Your task to perform on an android device: Open Google Image 0: 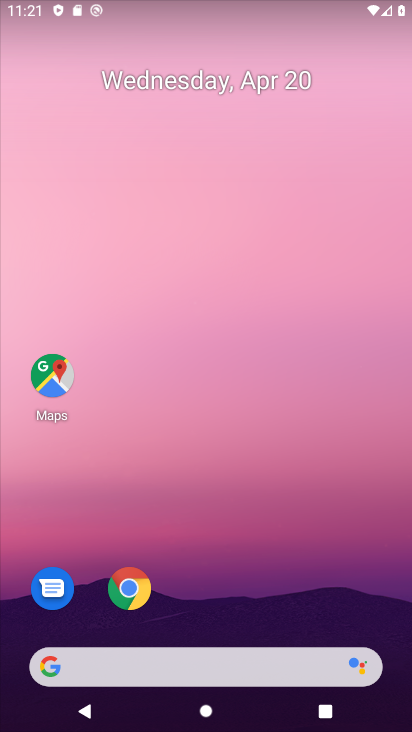
Step 0: drag from (164, 601) to (182, 160)
Your task to perform on an android device: Open Google Image 1: 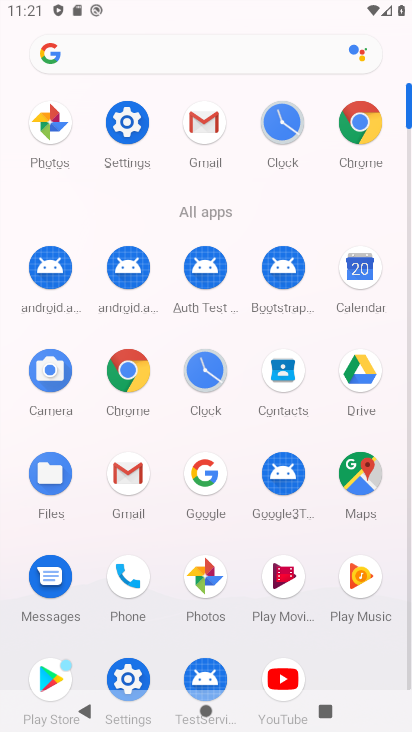
Step 1: click (196, 483)
Your task to perform on an android device: Open Google Image 2: 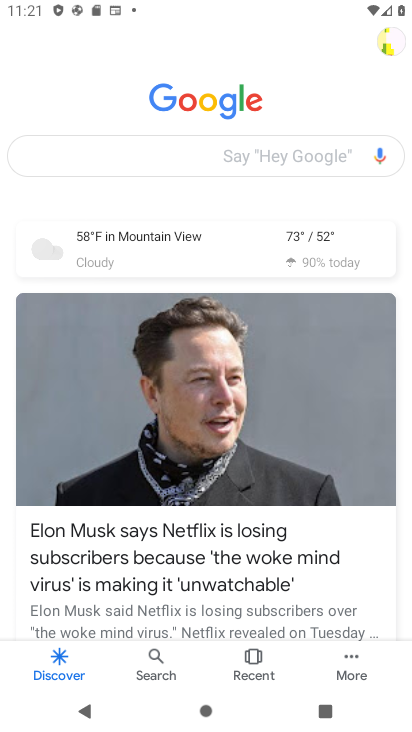
Step 2: task complete